Your task to perform on an android device: Go to settings Image 0: 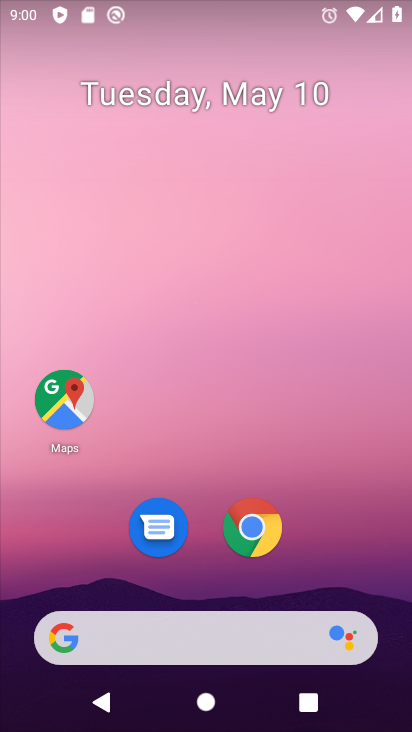
Step 0: drag from (235, 590) to (253, 11)
Your task to perform on an android device: Go to settings Image 1: 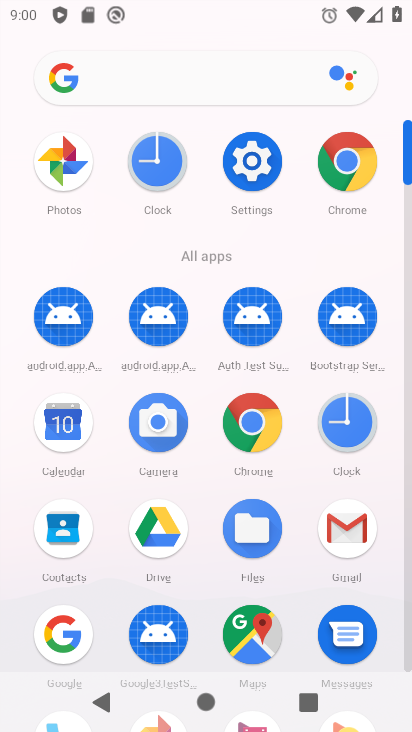
Step 1: click (258, 169)
Your task to perform on an android device: Go to settings Image 2: 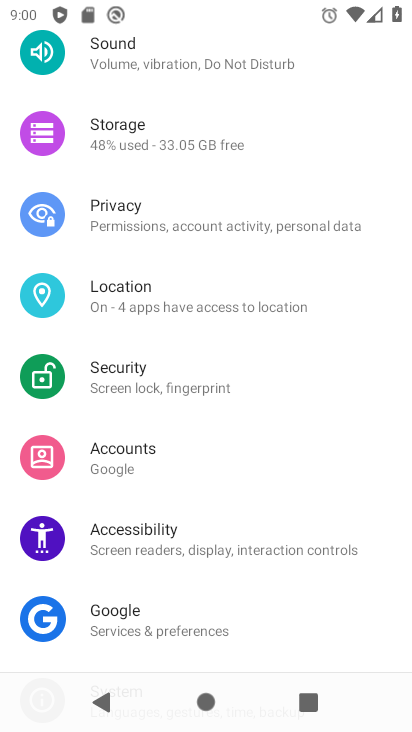
Step 2: task complete